Your task to perform on an android device: turn pop-ups on in chrome Image 0: 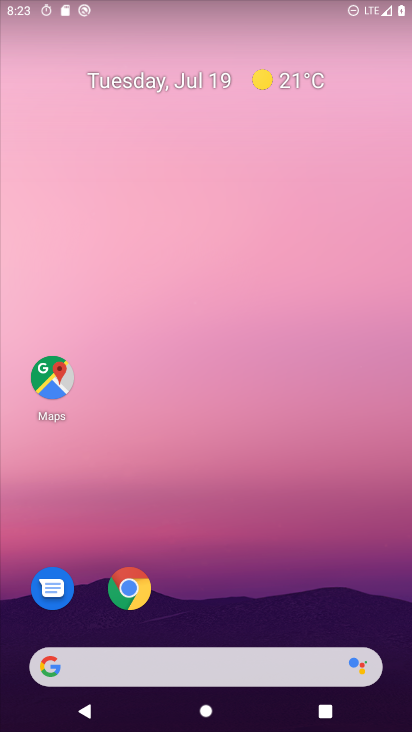
Step 0: drag from (313, 548) to (303, 122)
Your task to perform on an android device: turn pop-ups on in chrome Image 1: 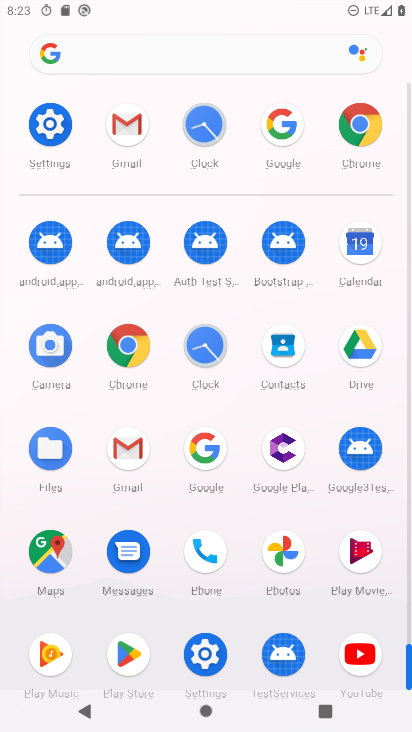
Step 1: click (136, 352)
Your task to perform on an android device: turn pop-ups on in chrome Image 2: 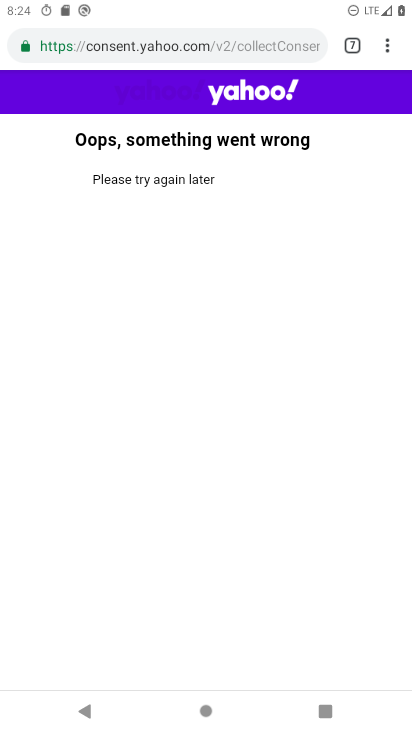
Step 2: click (392, 52)
Your task to perform on an android device: turn pop-ups on in chrome Image 3: 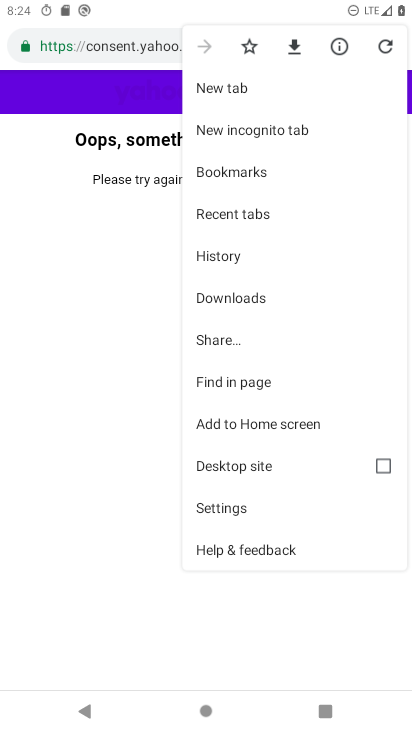
Step 3: click (257, 512)
Your task to perform on an android device: turn pop-ups on in chrome Image 4: 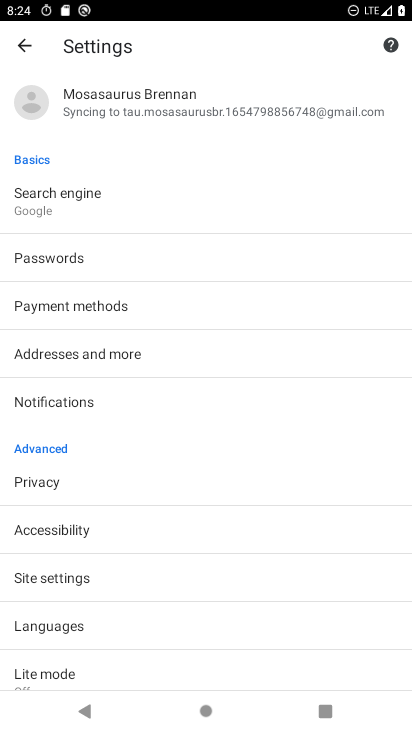
Step 4: drag from (184, 591) to (225, 353)
Your task to perform on an android device: turn pop-ups on in chrome Image 5: 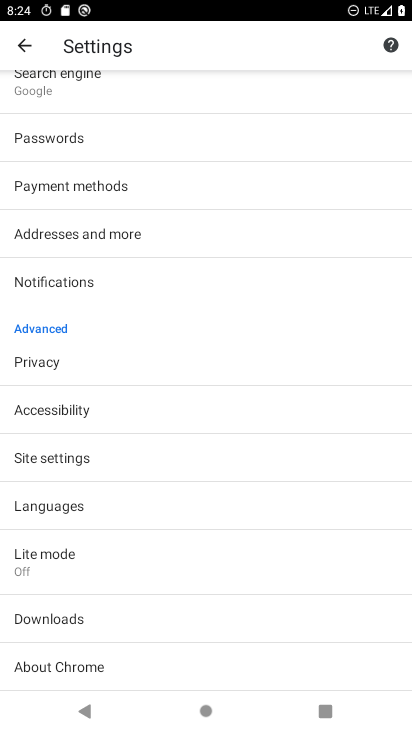
Step 5: drag from (181, 301) to (279, 107)
Your task to perform on an android device: turn pop-ups on in chrome Image 6: 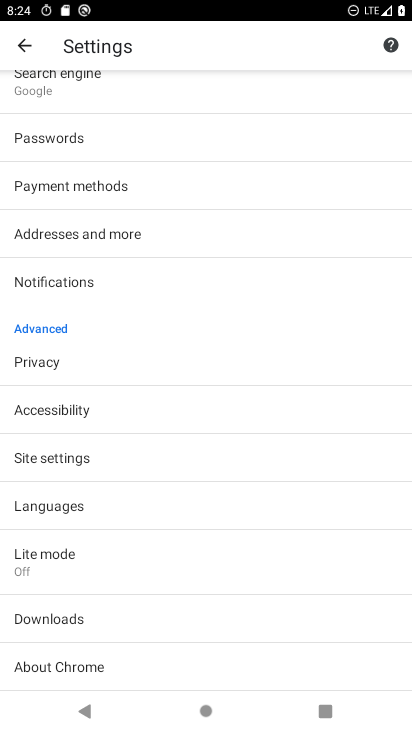
Step 6: click (130, 457)
Your task to perform on an android device: turn pop-ups on in chrome Image 7: 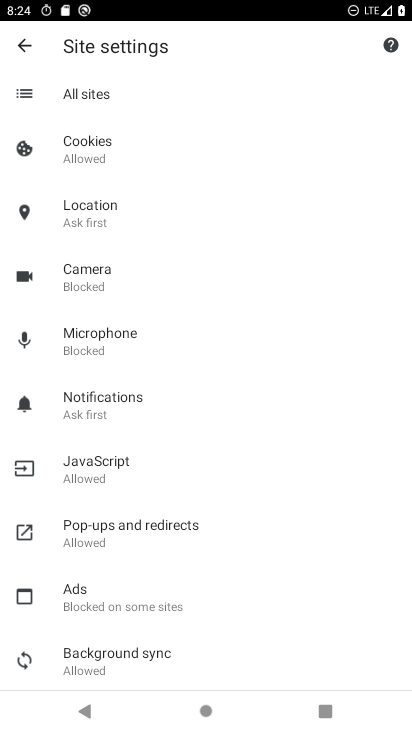
Step 7: click (143, 525)
Your task to perform on an android device: turn pop-ups on in chrome Image 8: 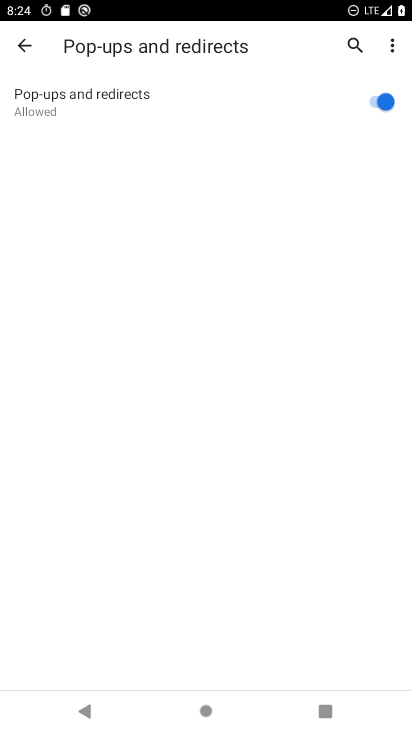
Step 8: task complete